Your task to perform on an android device: Open display settings Image 0: 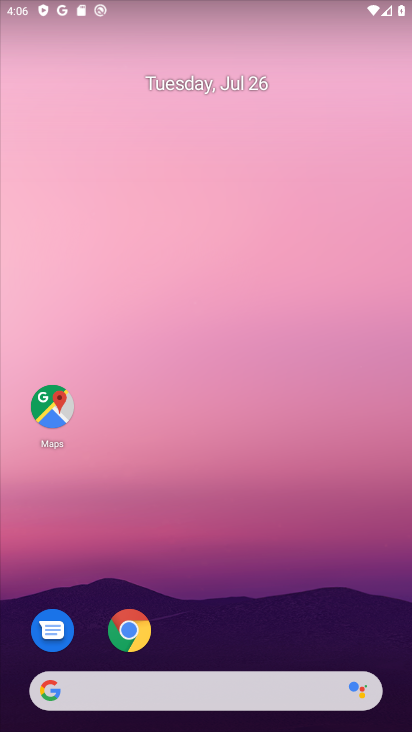
Step 0: drag from (334, 634) to (285, 94)
Your task to perform on an android device: Open display settings Image 1: 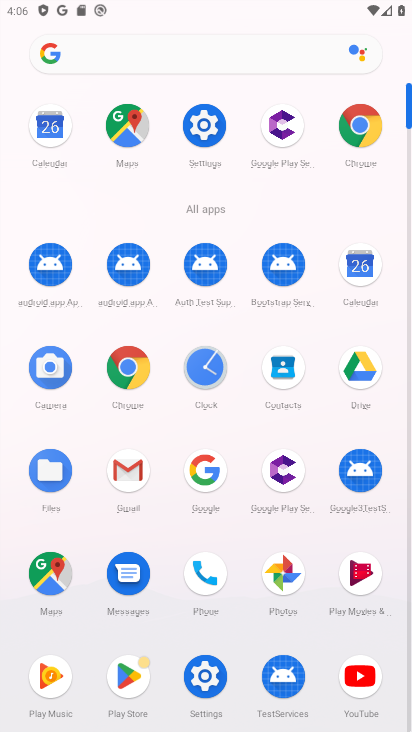
Step 1: click (206, 125)
Your task to perform on an android device: Open display settings Image 2: 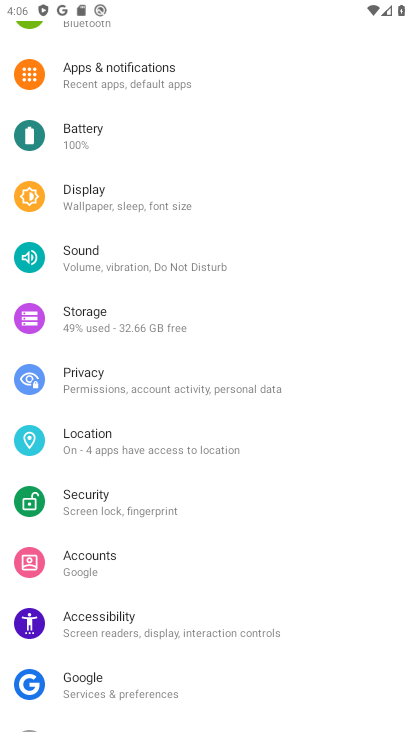
Step 2: click (155, 210)
Your task to perform on an android device: Open display settings Image 3: 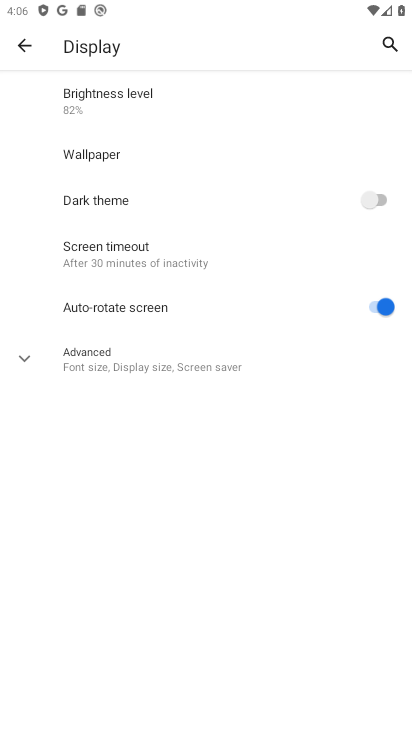
Step 3: task complete